Your task to perform on an android device: turn off smart reply in the gmail app Image 0: 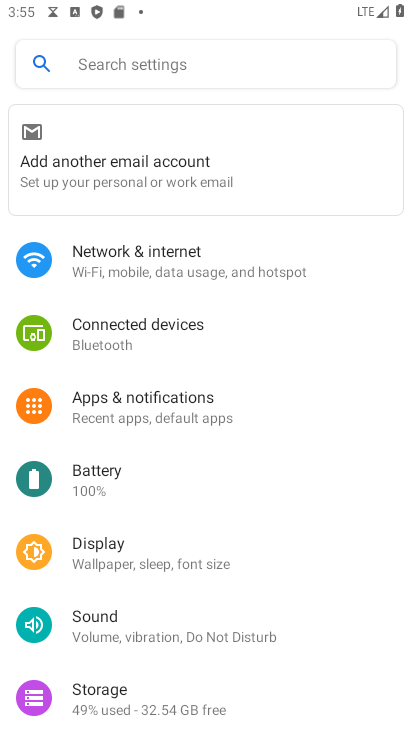
Step 0: press home button
Your task to perform on an android device: turn off smart reply in the gmail app Image 1: 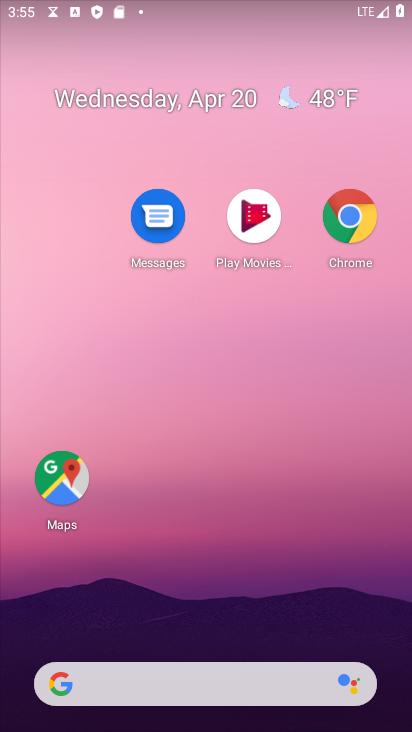
Step 1: drag from (267, 525) to (250, 95)
Your task to perform on an android device: turn off smart reply in the gmail app Image 2: 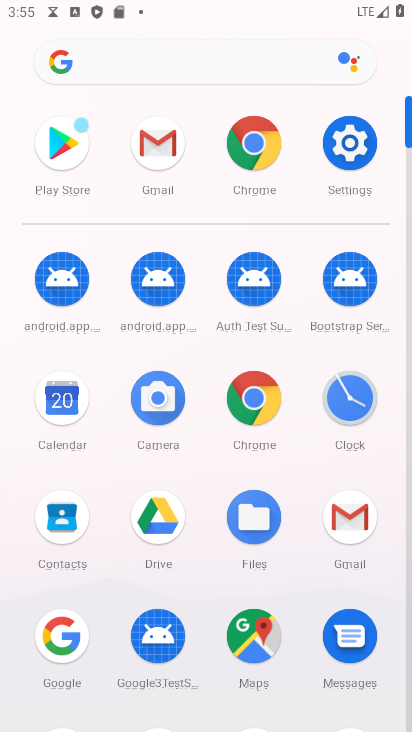
Step 2: click (353, 517)
Your task to perform on an android device: turn off smart reply in the gmail app Image 3: 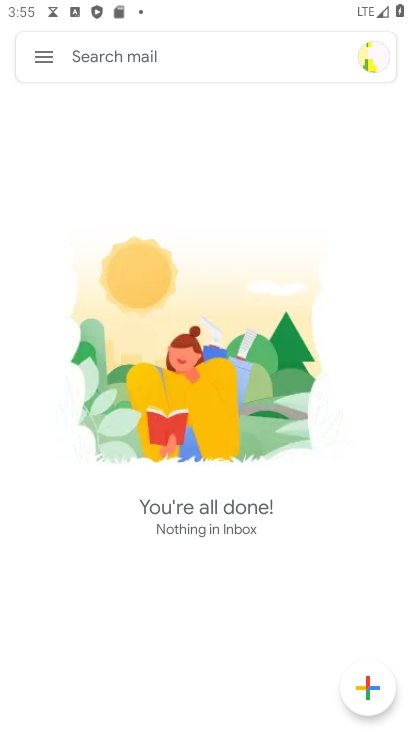
Step 3: click (52, 53)
Your task to perform on an android device: turn off smart reply in the gmail app Image 4: 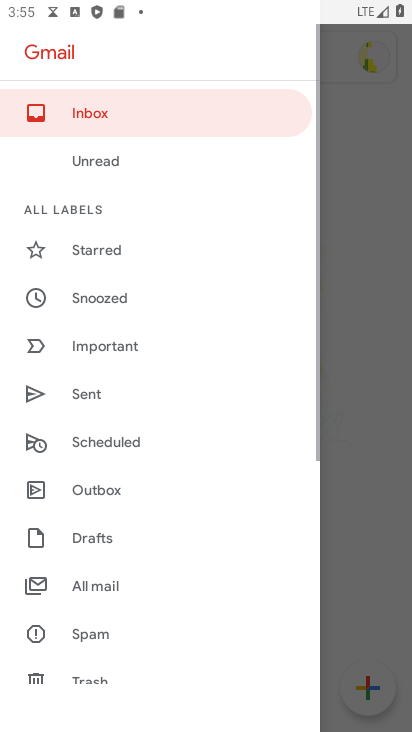
Step 4: drag from (127, 586) to (157, 155)
Your task to perform on an android device: turn off smart reply in the gmail app Image 5: 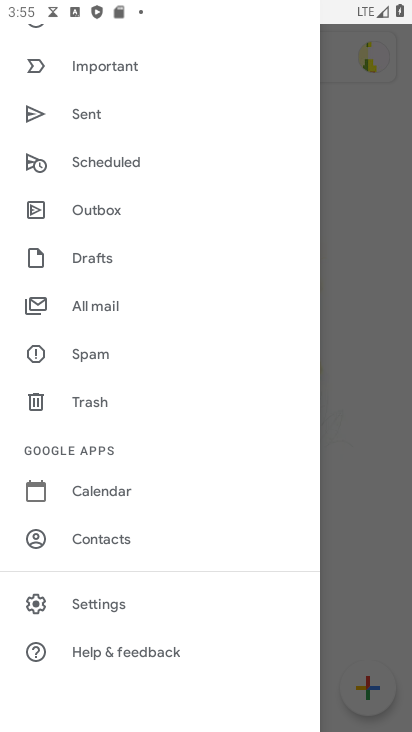
Step 5: click (116, 614)
Your task to perform on an android device: turn off smart reply in the gmail app Image 6: 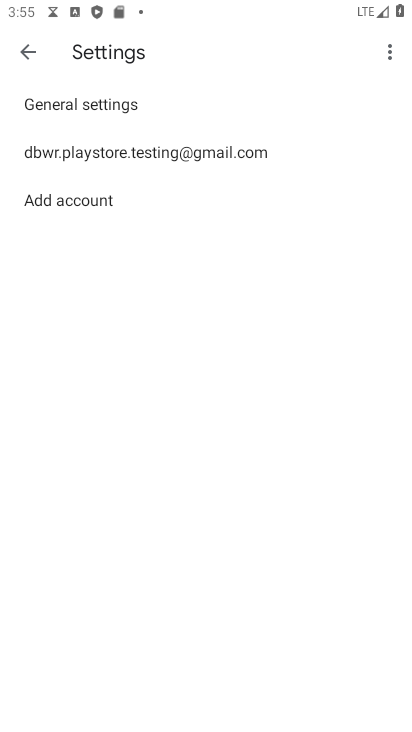
Step 6: click (152, 147)
Your task to perform on an android device: turn off smart reply in the gmail app Image 7: 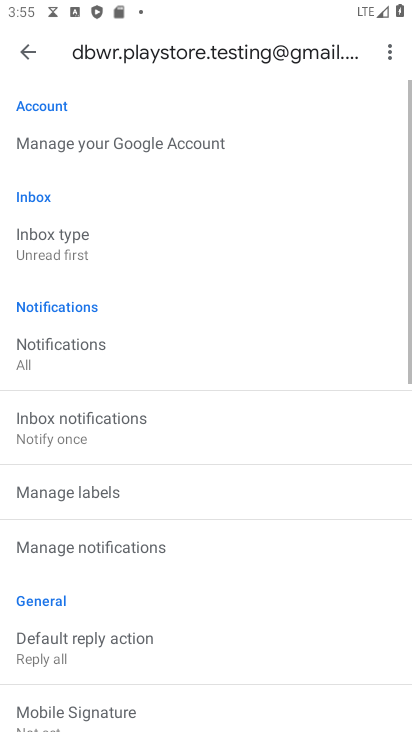
Step 7: drag from (192, 617) to (174, 203)
Your task to perform on an android device: turn off smart reply in the gmail app Image 8: 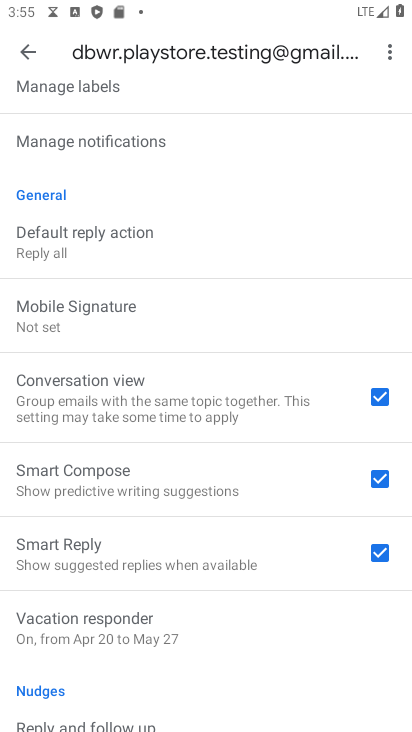
Step 8: click (372, 550)
Your task to perform on an android device: turn off smart reply in the gmail app Image 9: 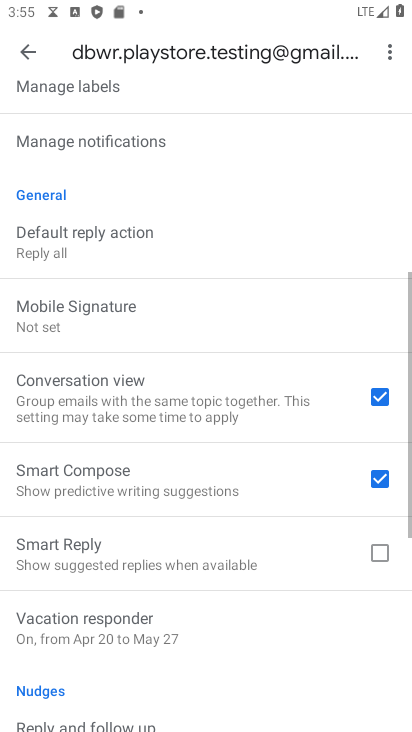
Step 9: task complete